Your task to perform on an android device: find photos in the google photos app Image 0: 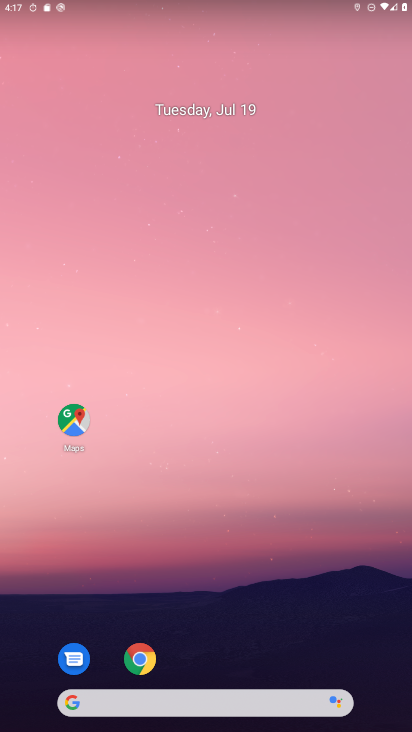
Step 0: drag from (302, 604) to (284, 11)
Your task to perform on an android device: find photos in the google photos app Image 1: 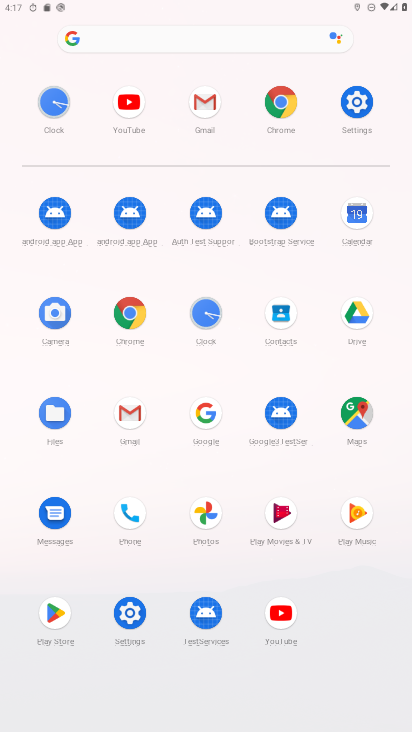
Step 1: click (218, 519)
Your task to perform on an android device: find photos in the google photos app Image 2: 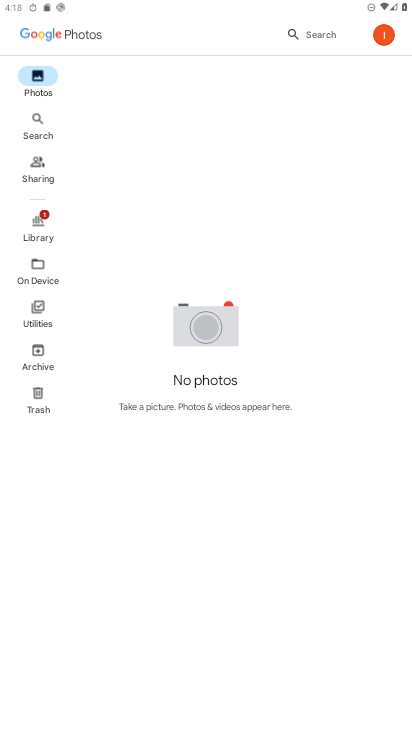
Step 2: task complete